Your task to perform on an android device: Go to Yahoo.com Image 0: 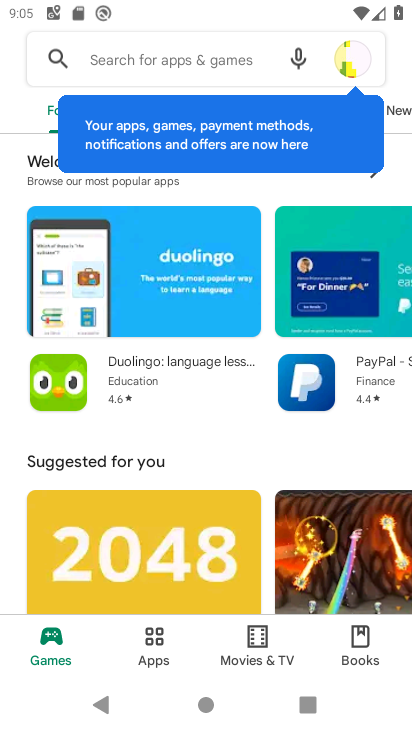
Step 0: press home button
Your task to perform on an android device: Go to Yahoo.com Image 1: 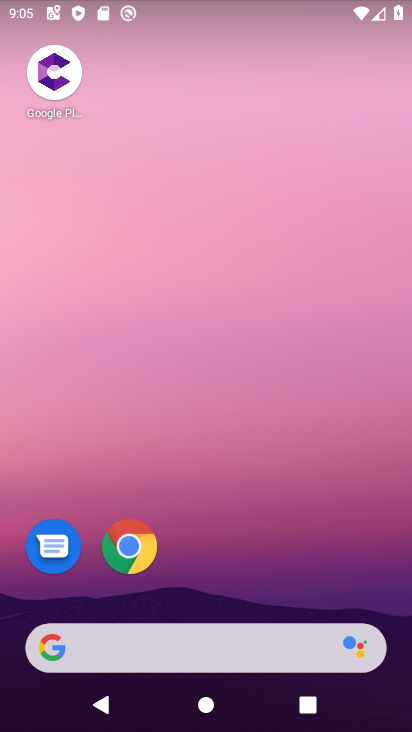
Step 1: click (127, 545)
Your task to perform on an android device: Go to Yahoo.com Image 2: 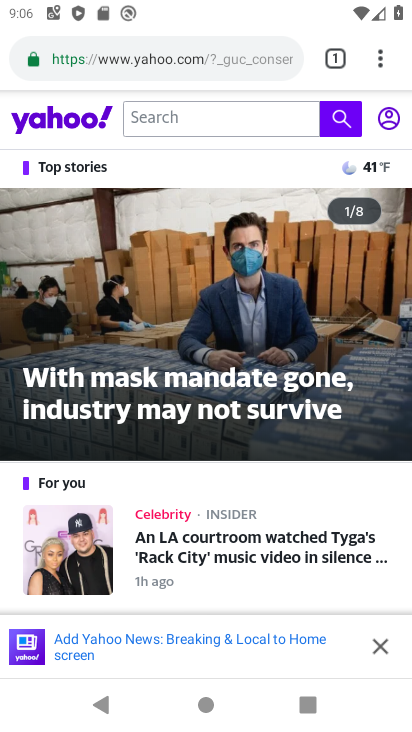
Step 2: task complete